Your task to perform on an android device: Turn off the flashlight Image 0: 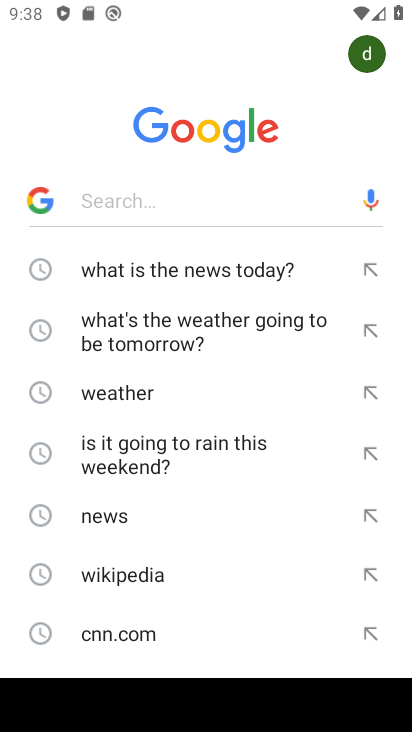
Step 0: press back button
Your task to perform on an android device: Turn off the flashlight Image 1: 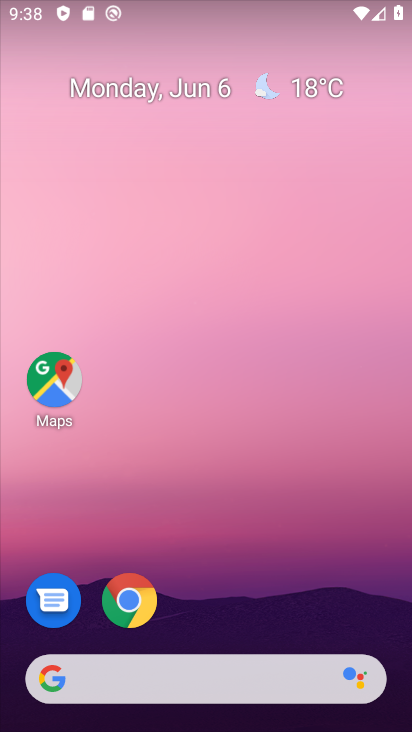
Step 1: drag from (177, 601) to (233, 22)
Your task to perform on an android device: Turn off the flashlight Image 2: 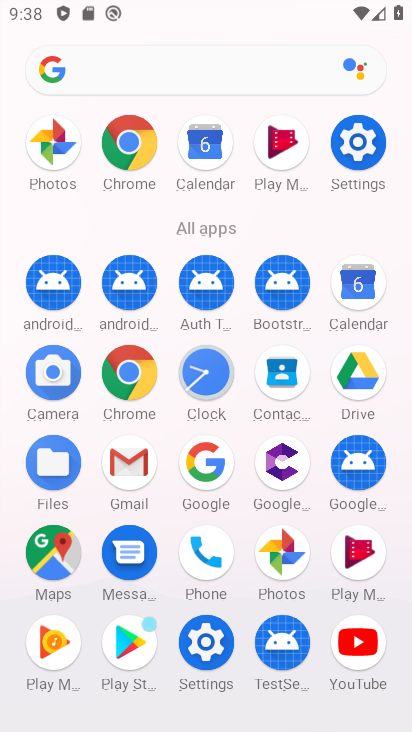
Step 2: click (356, 138)
Your task to perform on an android device: Turn off the flashlight Image 3: 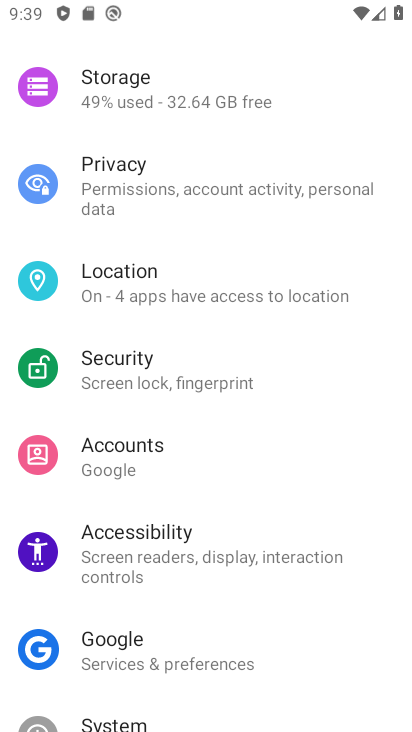
Step 3: drag from (271, 165) to (262, 551)
Your task to perform on an android device: Turn off the flashlight Image 4: 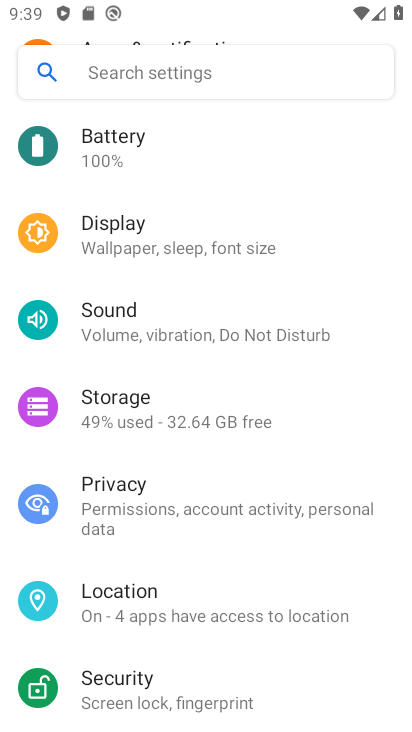
Step 4: drag from (274, 206) to (258, 620)
Your task to perform on an android device: Turn off the flashlight Image 5: 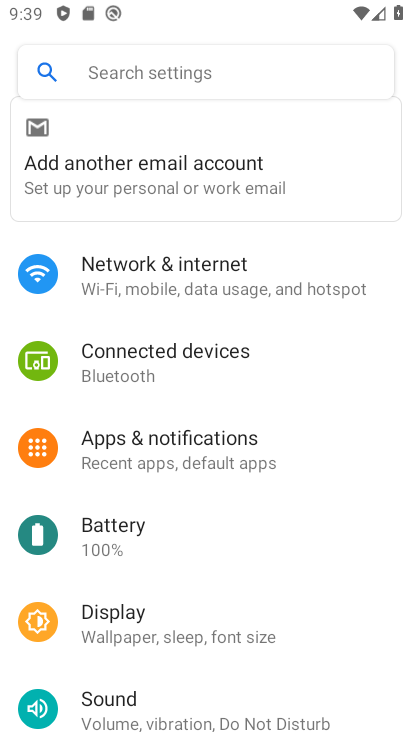
Step 5: click (231, 281)
Your task to perform on an android device: Turn off the flashlight Image 6: 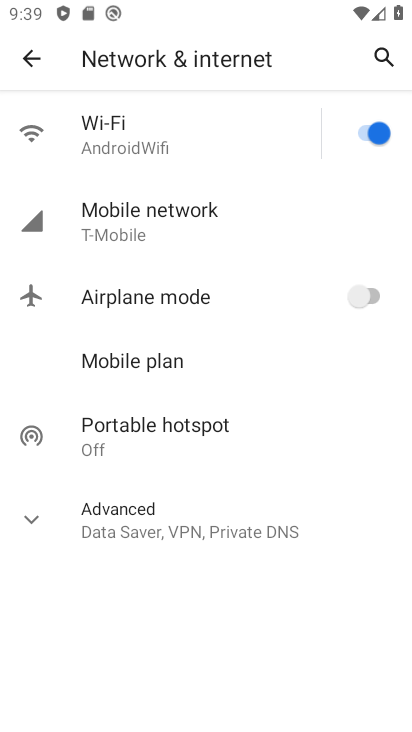
Step 6: click (22, 527)
Your task to perform on an android device: Turn off the flashlight Image 7: 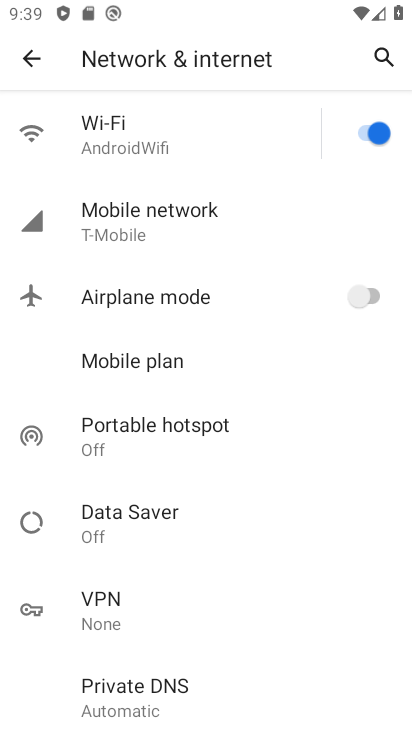
Step 7: task complete